Your task to perform on an android device: Open ESPN.com Image 0: 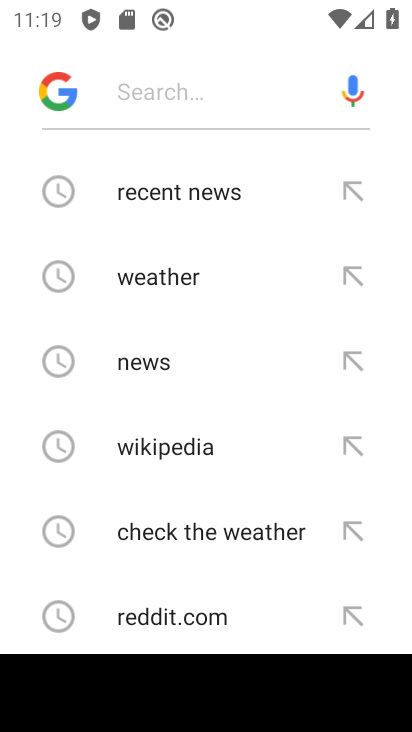
Step 0: press home button
Your task to perform on an android device: Open ESPN.com Image 1: 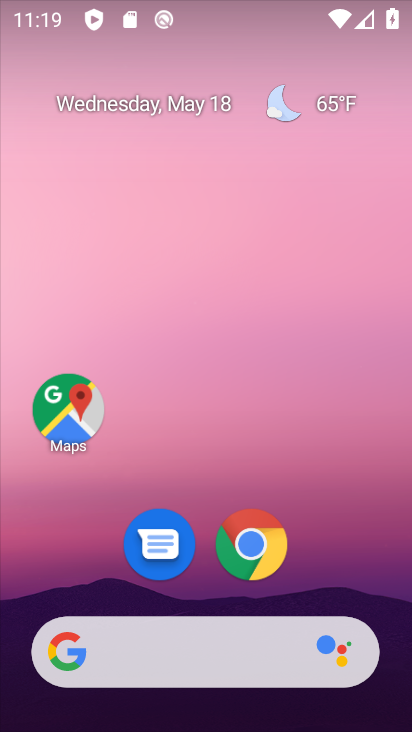
Step 1: drag from (363, 495) to (346, 104)
Your task to perform on an android device: Open ESPN.com Image 2: 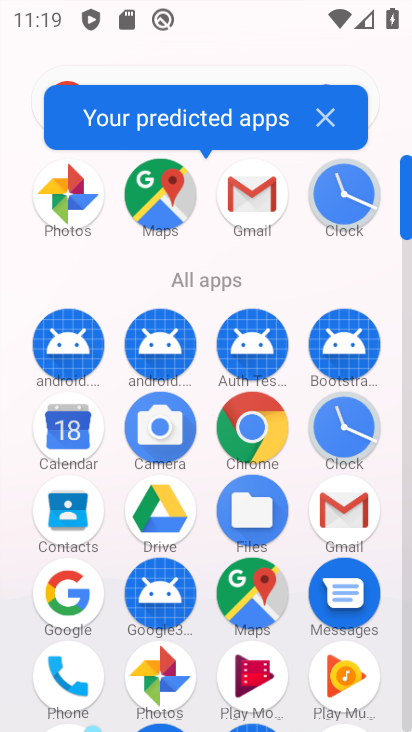
Step 2: click (279, 436)
Your task to perform on an android device: Open ESPN.com Image 3: 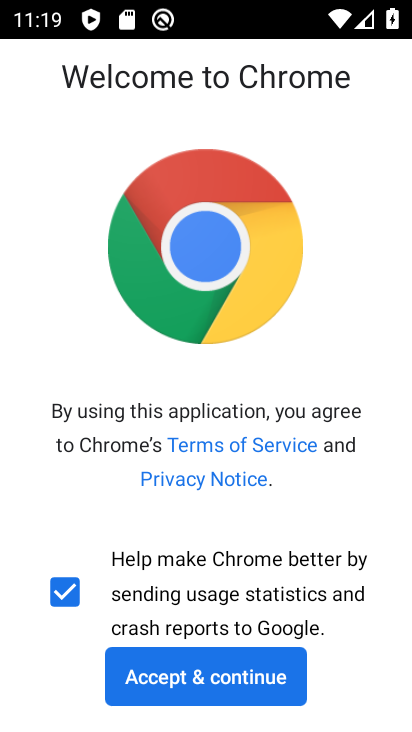
Step 3: click (254, 685)
Your task to perform on an android device: Open ESPN.com Image 4: 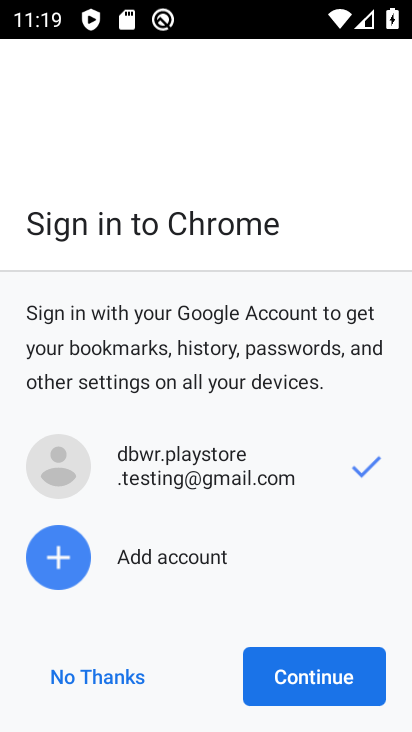
Step 4: click (347, 688)
Your task to perform on an android device: Open ESPN.com Image 5: 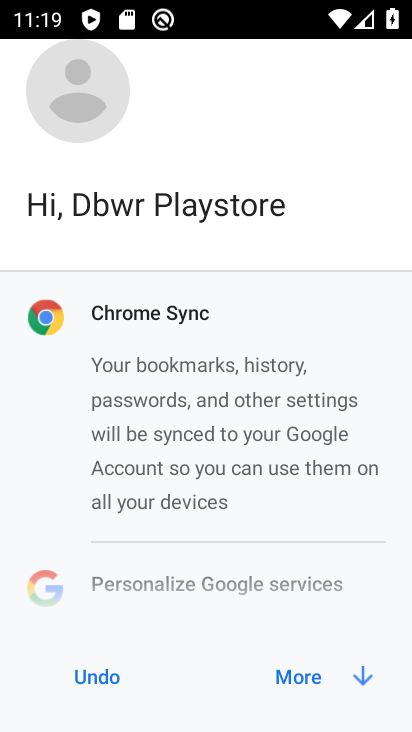
Step 5: click (311, 686)
Your task to perform on an android device: Open ESPN.com Image 6: 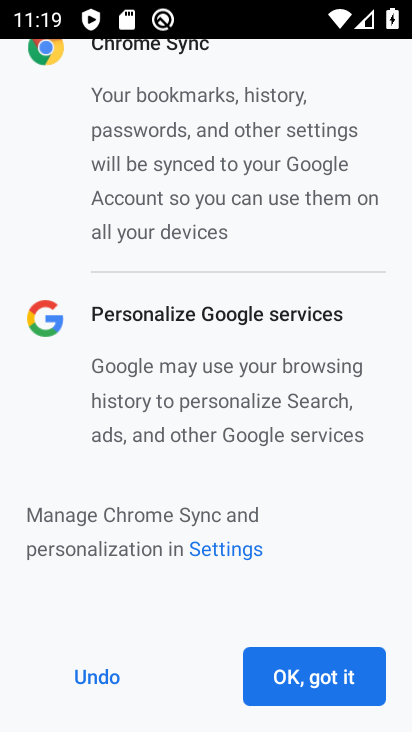
Step 6: click (323, 685)
Your task to perform on an android device: Open ESPN.com Image 7: 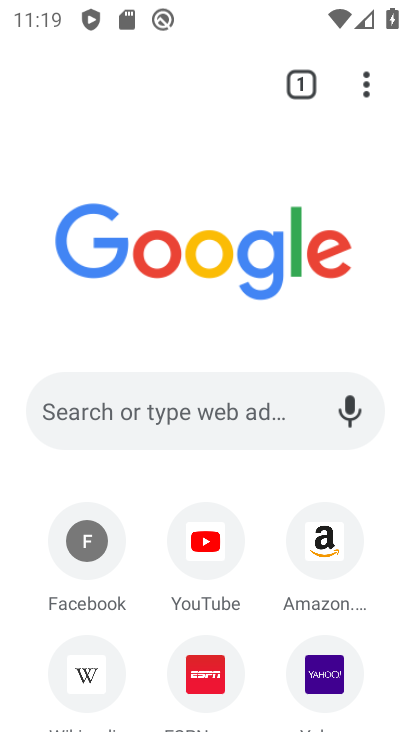
Step 7: drag from (391, 621) to (389, 458)
Your task to perform on an android device: Open ESPN.com Image 8: 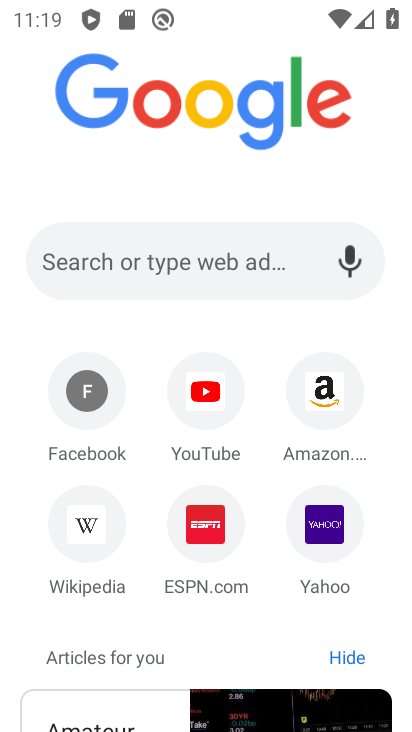
Step 8: click (184, 548)
Your task to perform on an android device: Open ESPN.com Image 9: 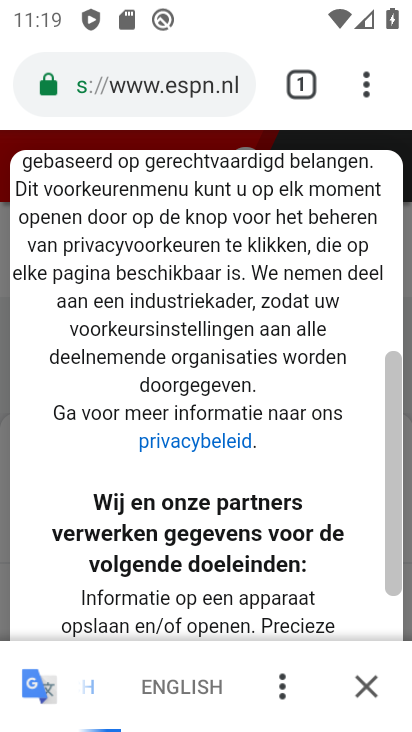
Step 9: task complete